Your task to perform on an android device: all mails in gmail Image 0: 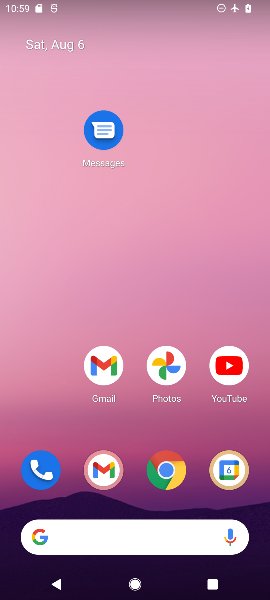
Step 0: drag from (125, 547) to (131, 149)
Your task to perform on an android device: all mails in gmail Image 1: 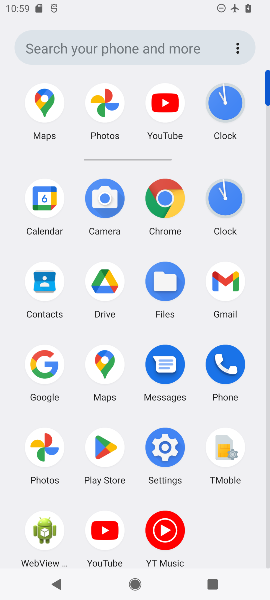
Step 1: click (225, 293)
Your task to perform on an android device: all mails in gmail Image 2: 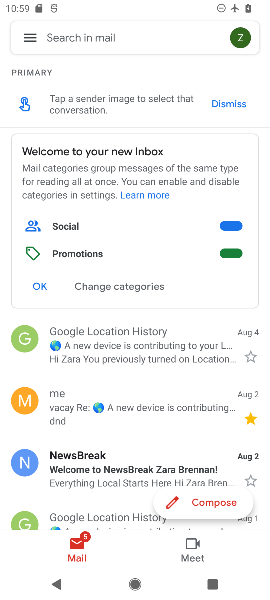
Step 2: click (133, 43)
Your task to perform on an android device: all mails in gmail Image 3: 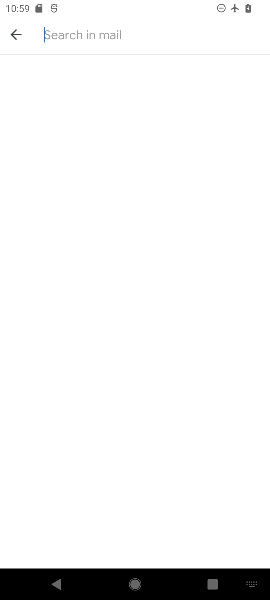
Step 3: click (14, 32)
Your task to perform on an android device: all mails in gmail Image 4: 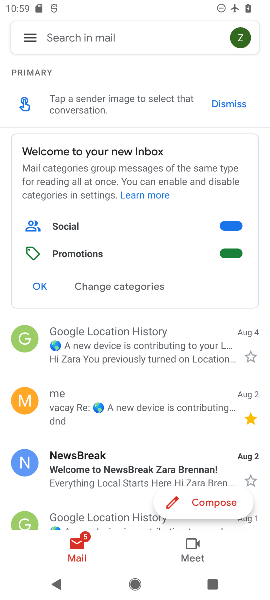
Step 4: click (34, 44)
Your task to perform on an android device: all mails in gmail Image 5: 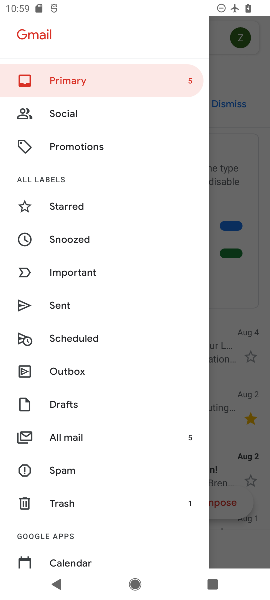
Step 5: click (101, 431)
Your task to perform on an android device: all mails in gmail Image 6: 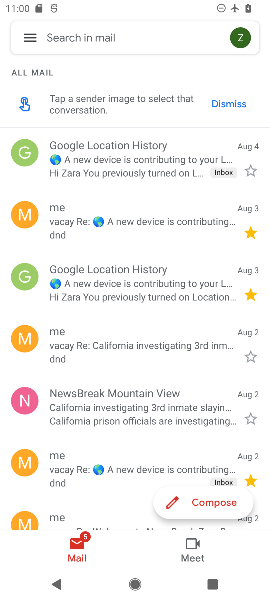
Step 6: task complete